Your task to perform on an android device: Go to sound settings Image 0: 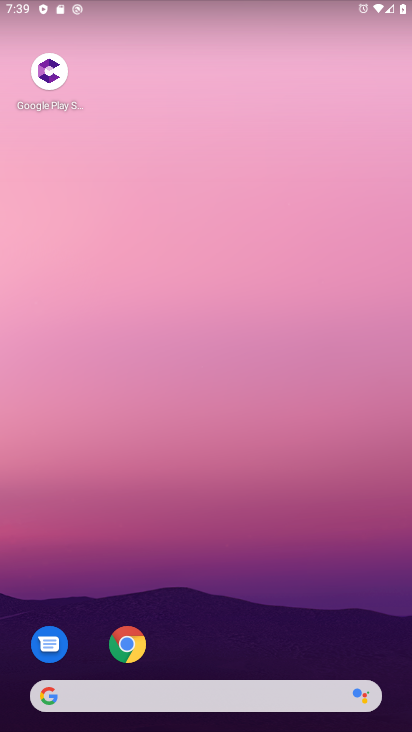
Step 0: drag from (160, 660) to (205, 276)
Your task to perform on an android device: Go to sound settings Image 1: 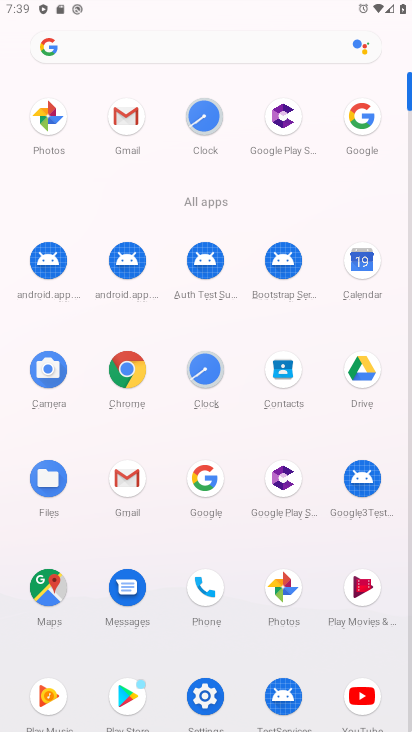
Step 1: click (199, 698)
Your task to perform on an android device: Go to sound settings Image 2: 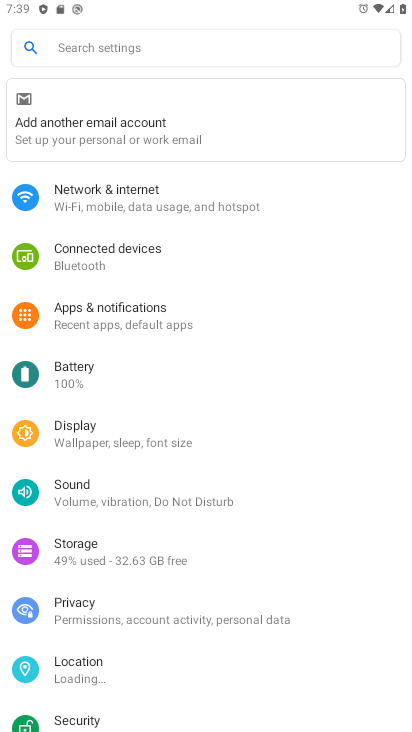
Step 2: click (71, 498)
Your task to perform on an android device: Go to sound settings Image 3: 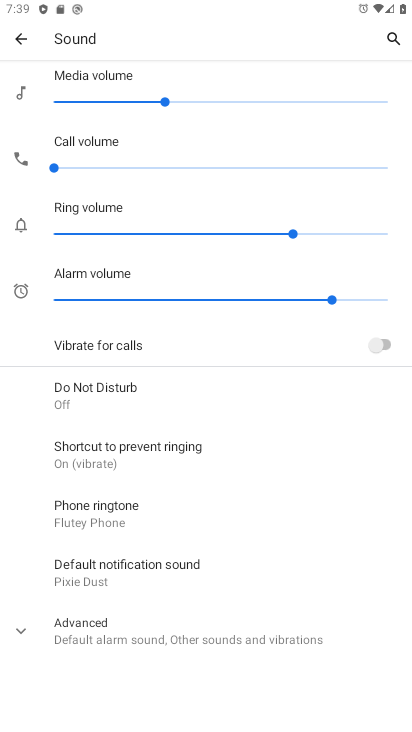
Step 3: click (152, 640)
Your task to perform on an android device: Go to sound settings Image 4: 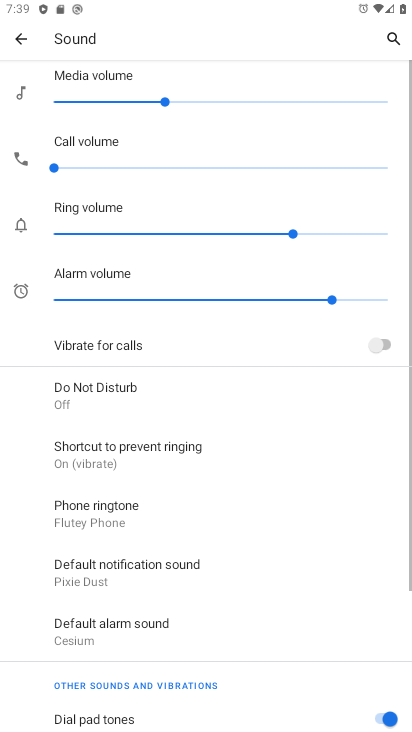
Step 4: task complete